Your task to perform on an android device: Open wifi settings Image 0: 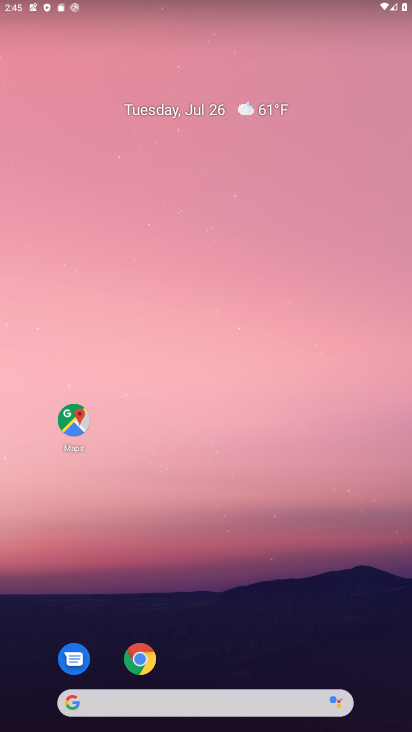
Step 0: drag from (229, 561) to (191, 79)
Your task to perform on an android device: Open wifi settings Image 1: 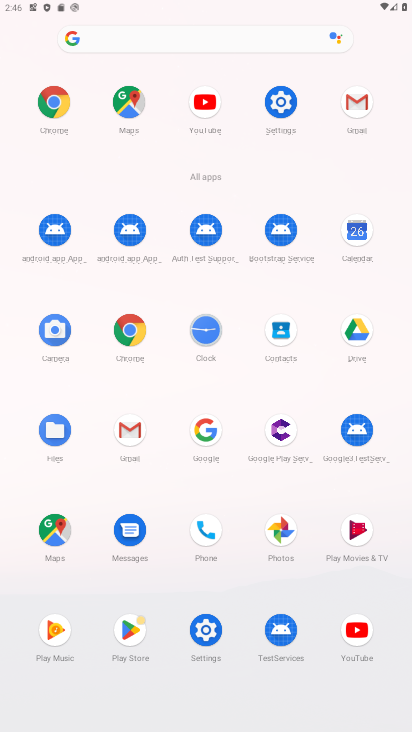
Step 1: click (284, 118)
Your task to perform on an android device: Open wifi settings Image 2: 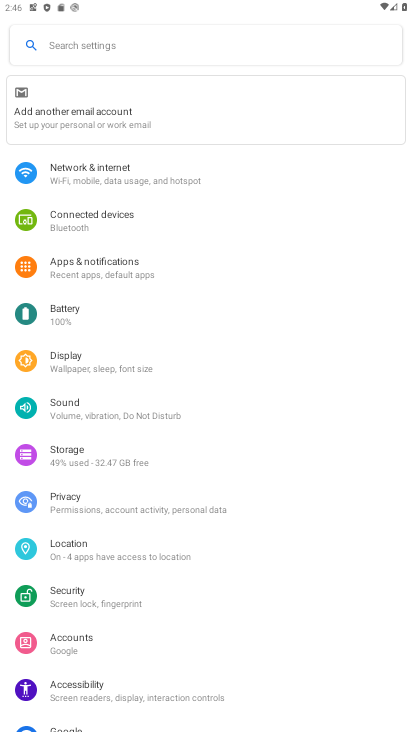
Step 2: click (157, 179)
Your task to perform on an android device: Open wifi settings Image 3: 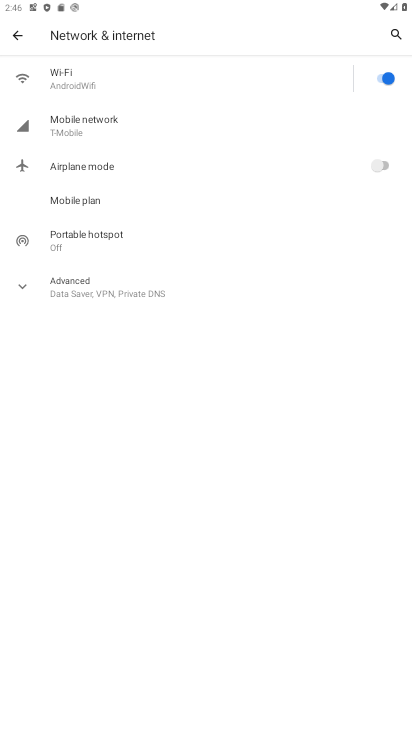
Step 3: click (122, 71)
Your task to perform on an android device: Open wifi settings Image 4: 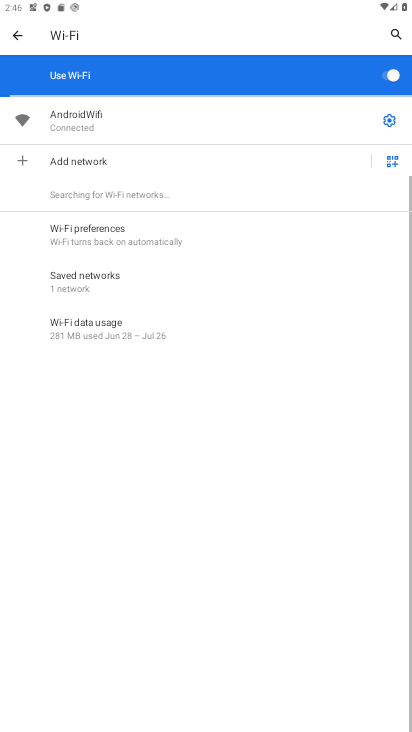
Step 4: task complete